Your task to perform on an android device: Go to wifi settings Image 0: 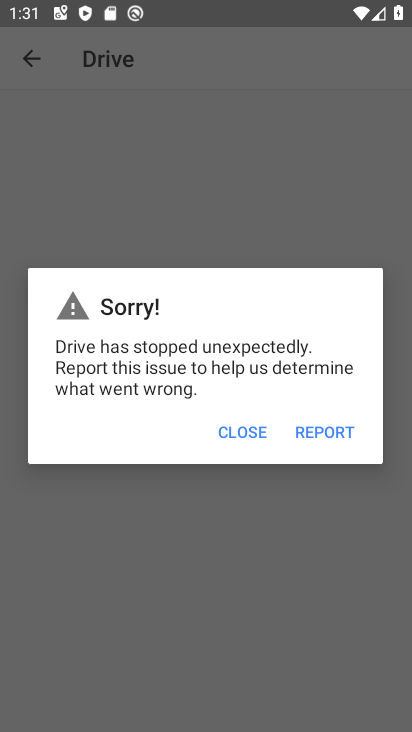
Step 0: press home button
Your task to perform on an android device: Go to wifi settings Image 1: 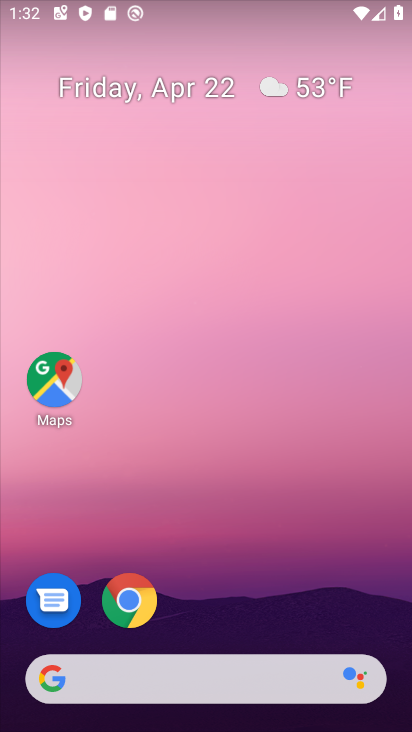
Step 1: drag from (219, 717) to (218, 157)
Your task to perform on an android device: Go to wifi settings Image 2: 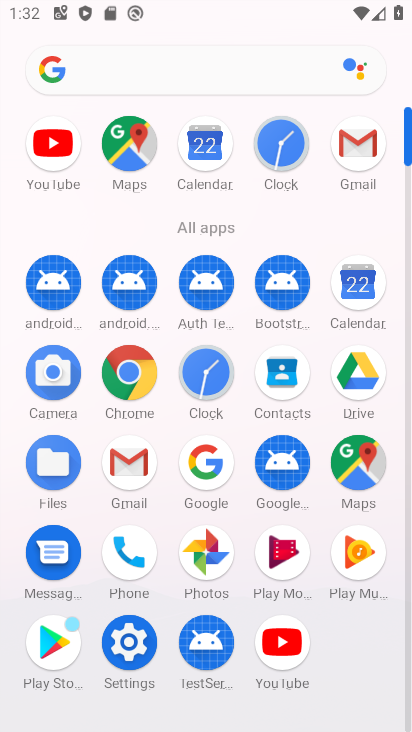
Step 2: click (122, 637)
Your task to perform on an android device: Go to wifi settings Image 3: 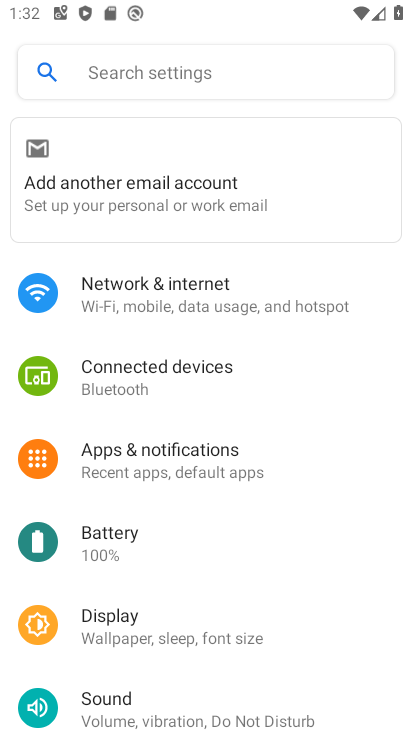
Step 3: click (166, 295)
Your task to perform on an android device: Go to wifi settings Image 4: 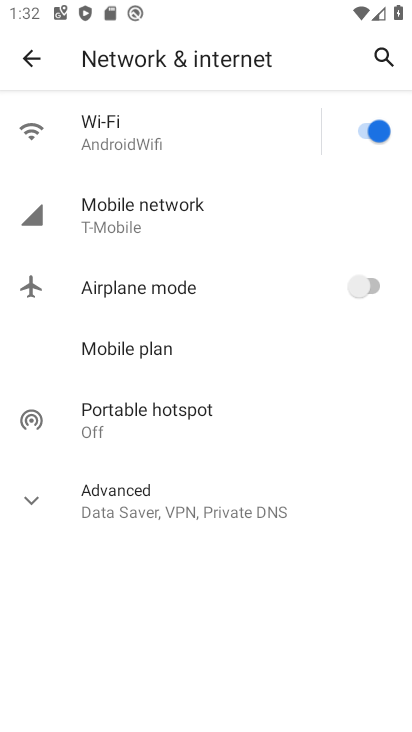
Step 4: click (121, 129)
Your task to perform on an android device: Go to wifi settings Image 5: 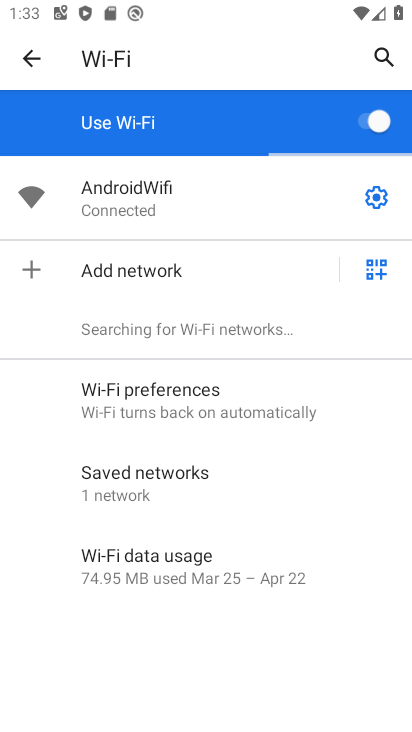
Step 5: task complete